Your task to perform on an android device: toggle translation in the chrome app Image 0: 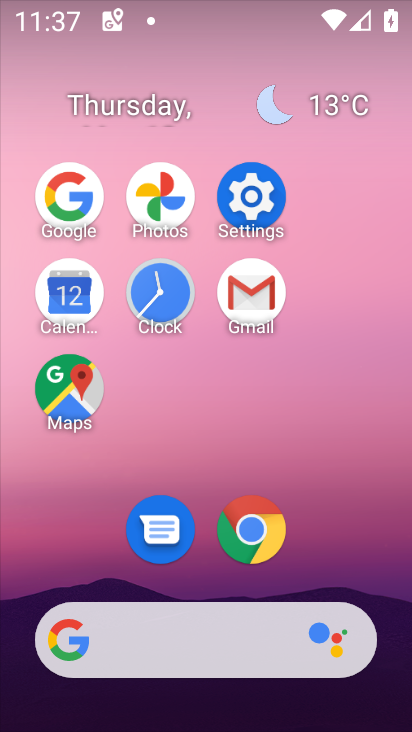
Step 0: click (257, 539)
Your task to perform on an android device: toggle translation in the chrome app Image 1: 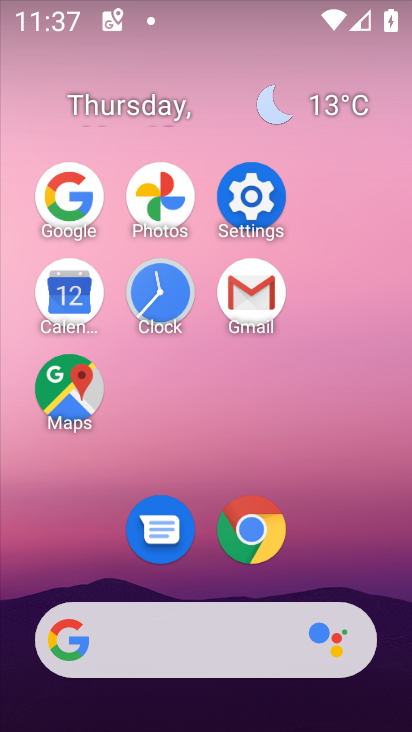
Step 1: click (250, 517)
Your task to perform on an android device: toggle translation in the chrome app Image 2: 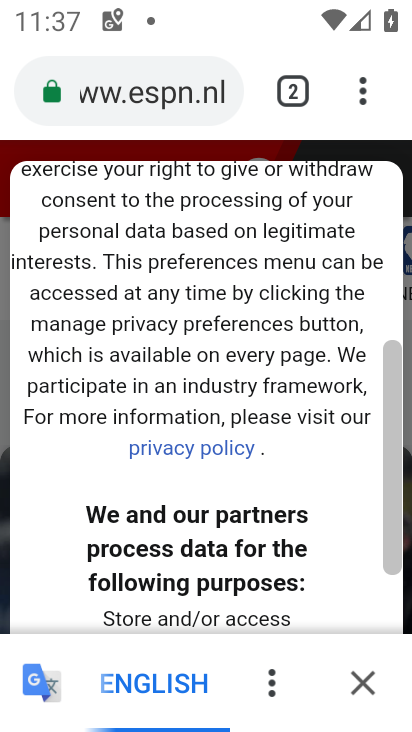
Step 2: click (367, 95)
Your task to perform on an android device: toggle translation in the chrome app Image 3: 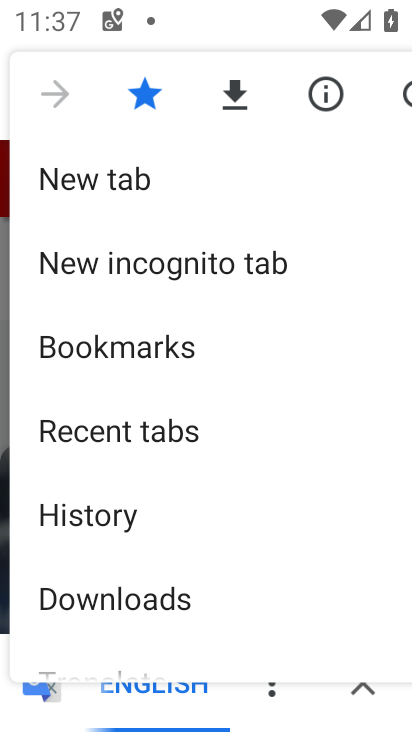
Step 3: drag from (249, 584) to (293, 167)
Your task to perform on an android device: toggle translation in the chrome app Image 4: 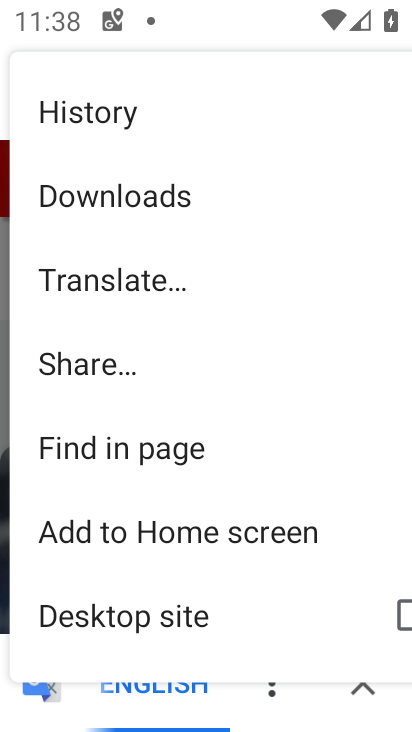
Step 4: drag from (174, 565) to (182, 217)
Your task to perform on an android device: toggle translation in the chrome app Image 5: 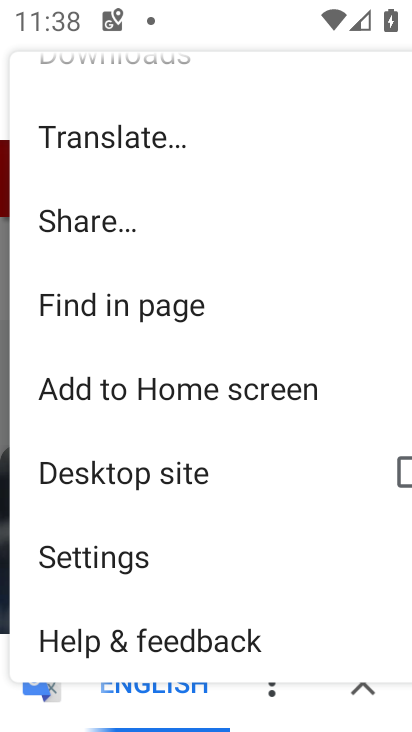
Step 5: click (138, 546)
Your task to perform on an android device: toggle translation in the chrome app Image 6: 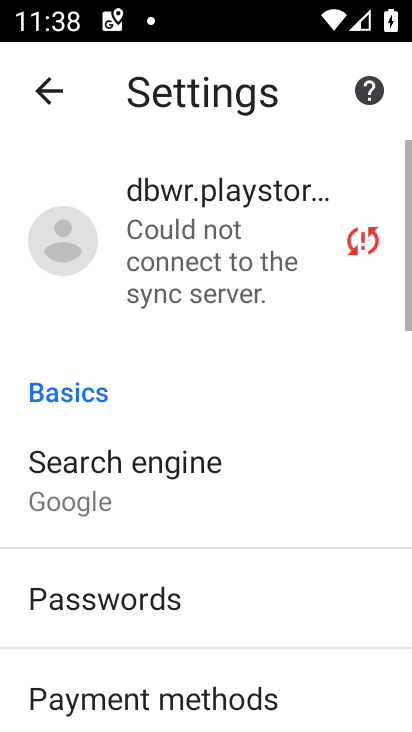
Step 6: drag from (133, 535) to (154, 190)
Your task to perform on an android device: toggle translation in the chrome app Image 7: 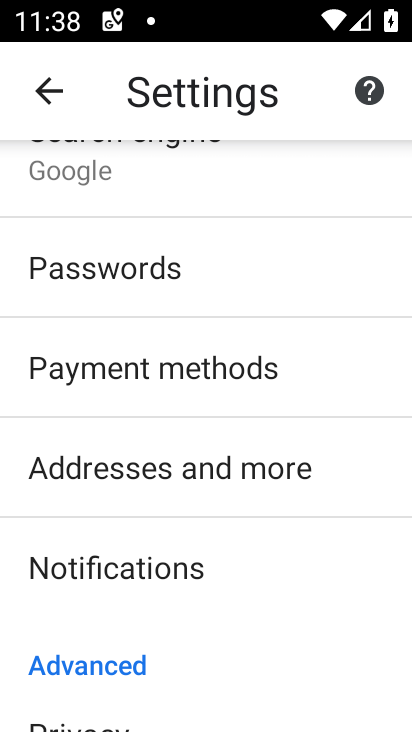
Step 7: drag from (146, 608) to (174, 275)
Your task to perform on an android device: toggle translation in the chrome app Image 8: 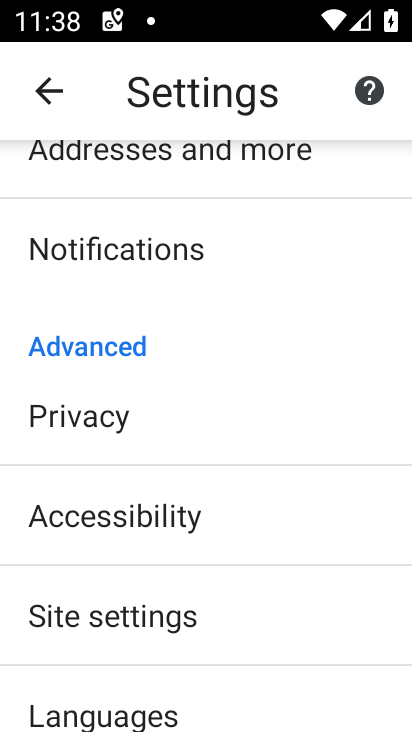
Step 8: drag from (129, 633) to (154, 328)
Your task to perform on an android device: toggle translation in the chrome app Image 9: 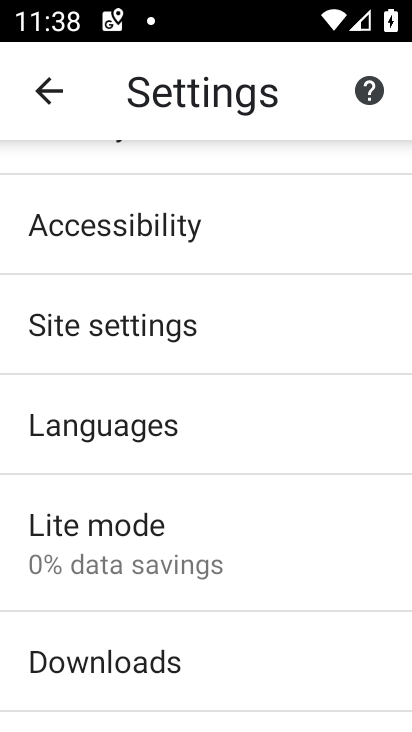
Step 9: click (154, 414)
Your task to perform on an android device: toggle translation in the chrome app Image 10: 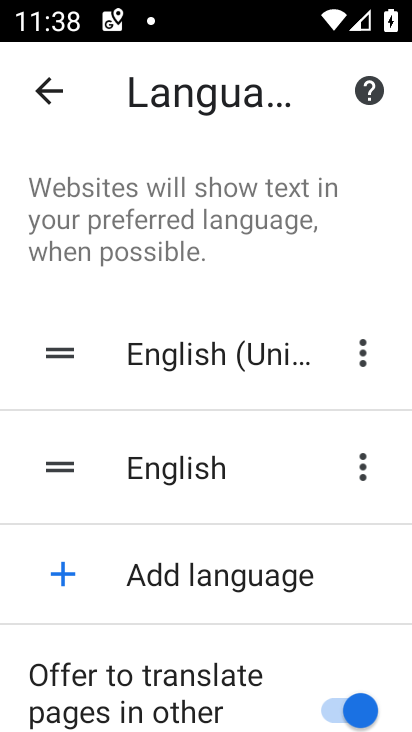
Step 10: click (352, 701)
Your task to perform on an android device: toggle translation in the chrome app Image 11: 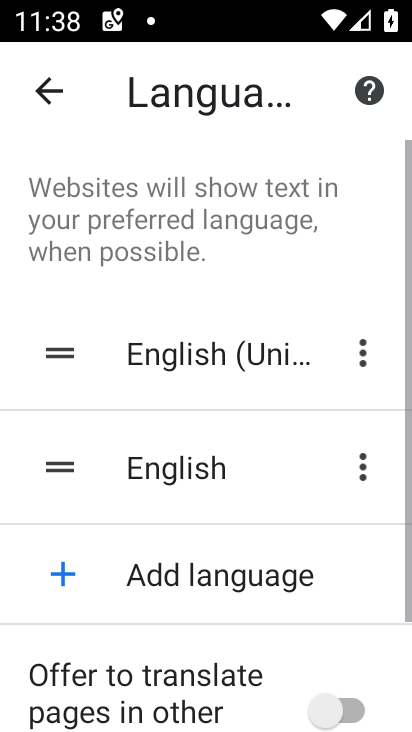
Step 11: task complete